Your task to perform on an android device: turn on notifications settings in the gmail app Image 0: 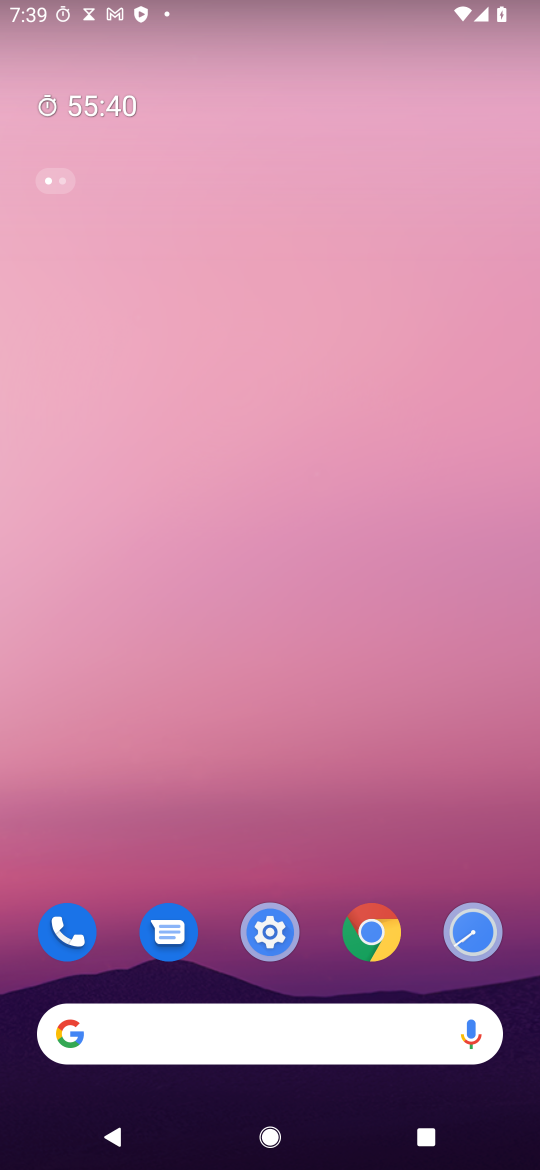
Step 0: drag from (396, 836) to (346, 82)
Your task to perform on an android device: turn on notifications settings in the gmail app Image 1: 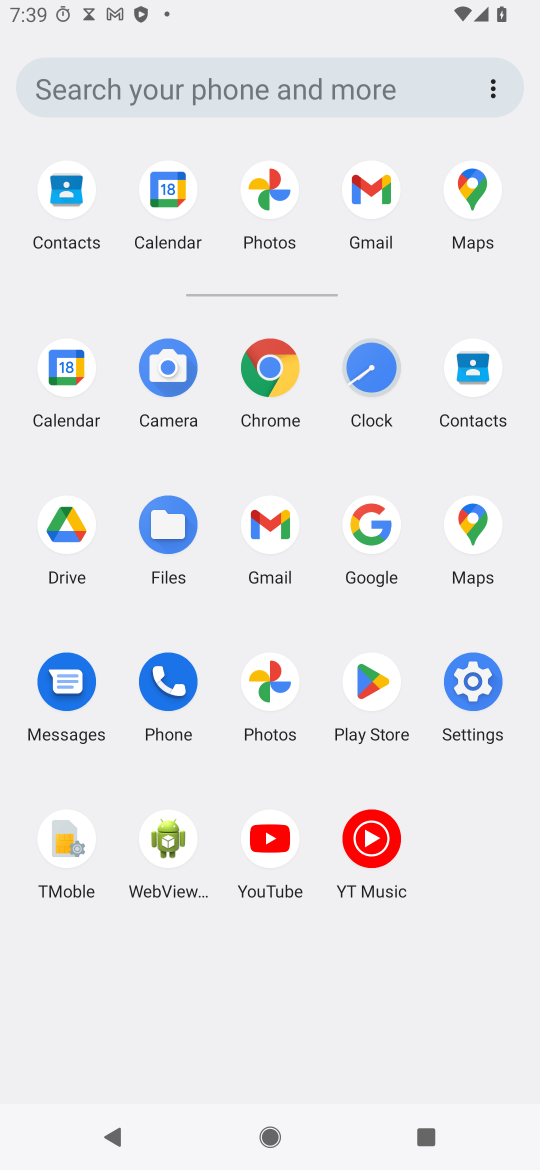
Step 1: click (269, 524)
Your task to perform on an android device: turn on notifications settings in the gmail app Image 2: 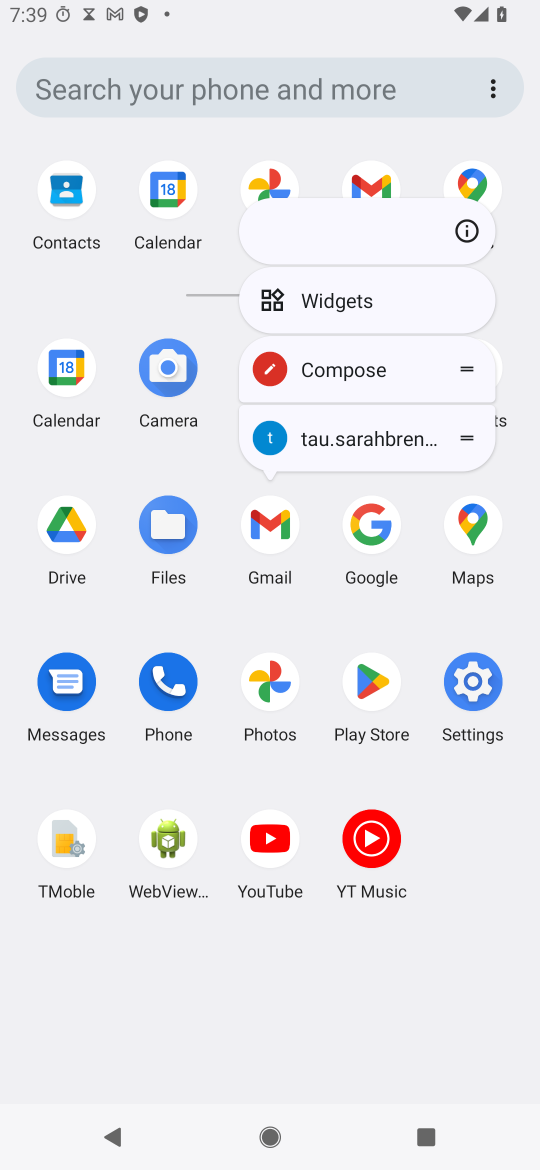
Step 2: click (475, 236)
Your task to perform on an android device: turn on notifications settings in the gmail app Image 3: 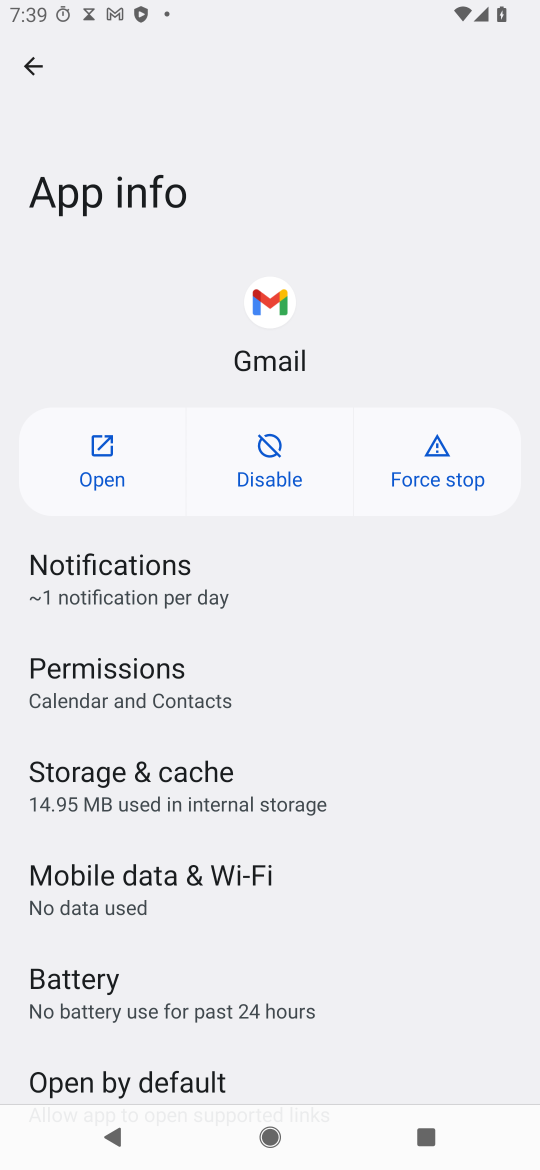
Step 3: click (167, 586)
Your task to perform on an android device: turn on notifications settings in the gmail app Image 4: 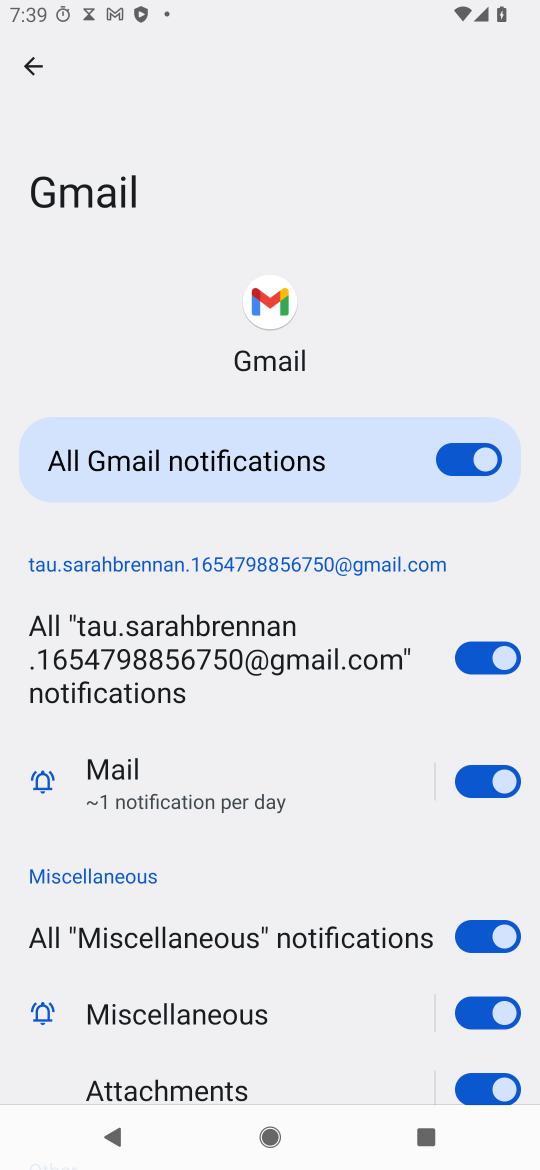
Step 4: task complete